Your task to perform on an android device: Go to Maps Image 0: 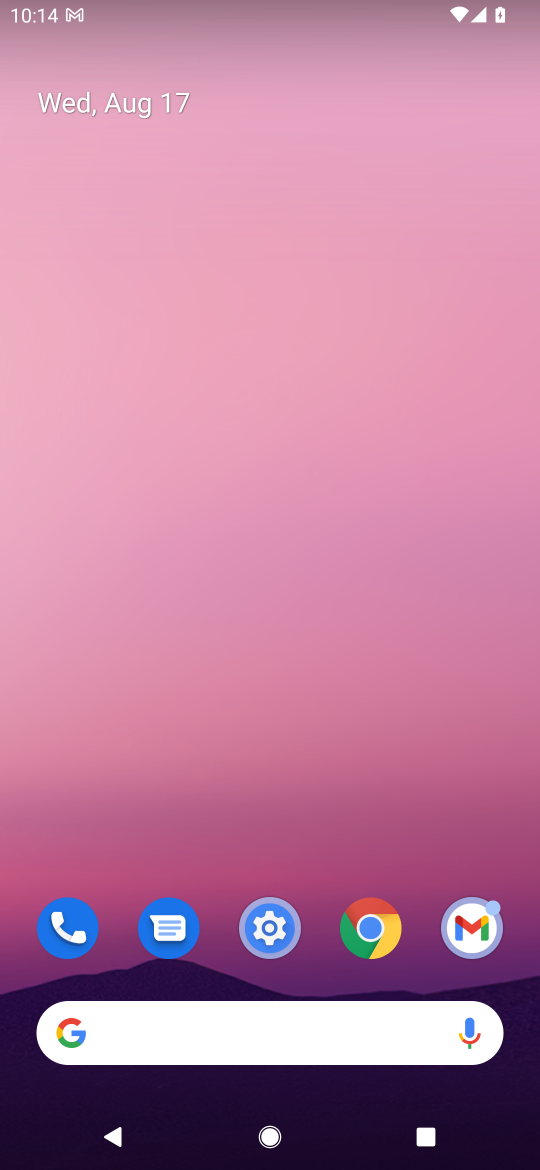
Step 0: drag from (263, 857) to (242, 317)
Your task to perform on an android device: Go to Maps Image 1: 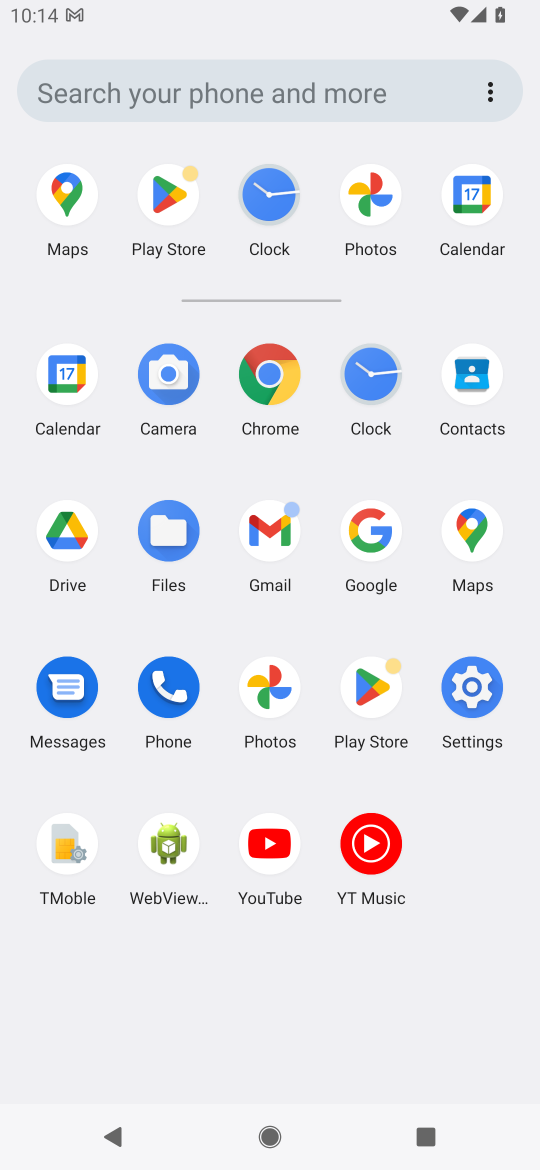
Step 1: click (475, 520)
Your task to perform on an android device: Go to Maps Image 2: 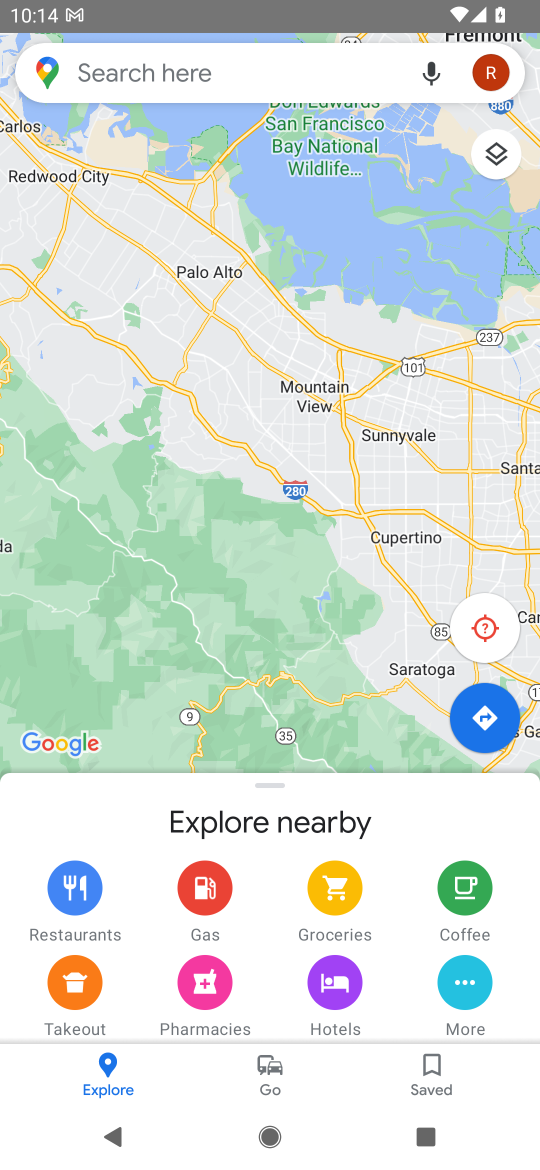
Step 2: task complete